Your task to perform on an android device: Go to accessibility settings Image 0: 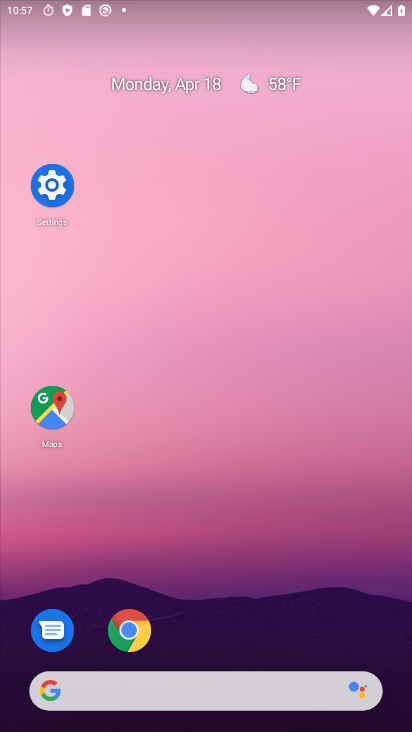
Step 0: drag from (299, 98) to (274, 408)
Your task to perform on an android device: Go to accessibility settings Image 1: 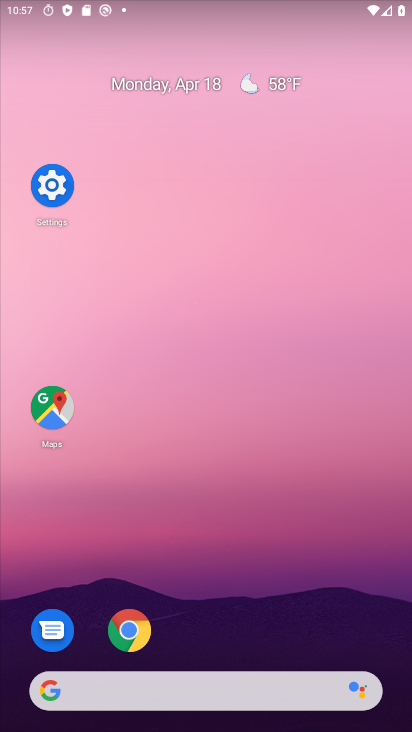
Step 1: drag from (279, 6) to (259, 488)
Your task to perform on an android device: Go to accessibility settings Image 2: 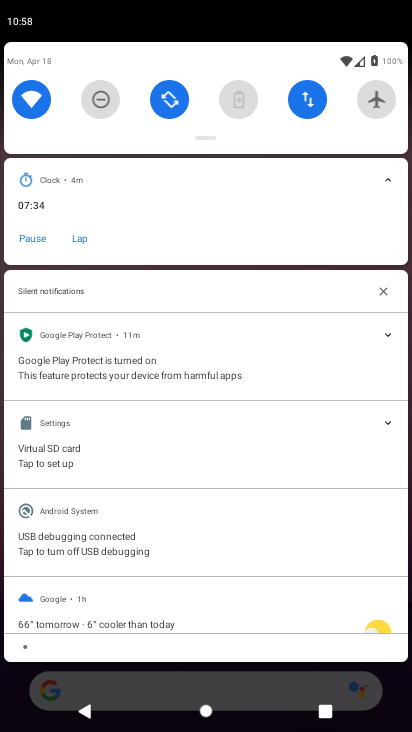
Step 2: press home button
Your task to perform on an android device: Go to accessibility settings Image 3: 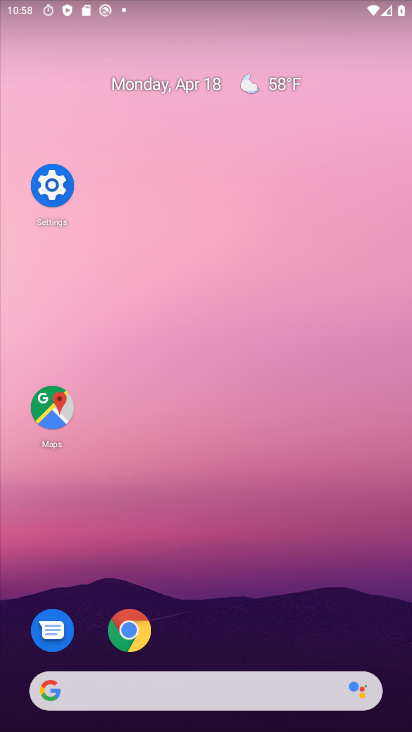
Step 3: click (65, 185)
Your task to perform on an android device: Go to accessibility settings Image 4: 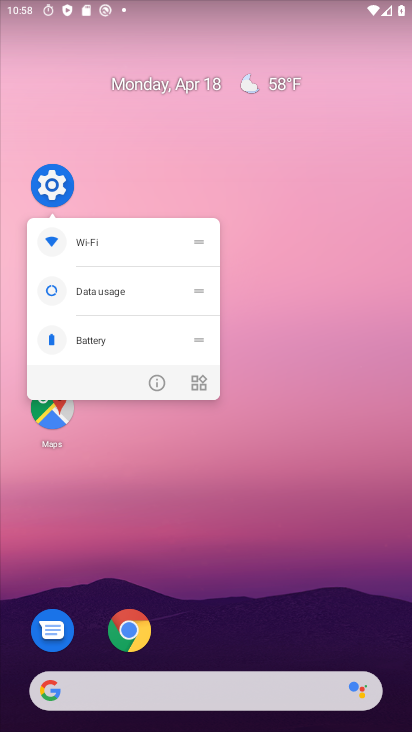
Step 4: click (46, 185)
Your task to perform on an android device: Go to accessibility settings Image 5: 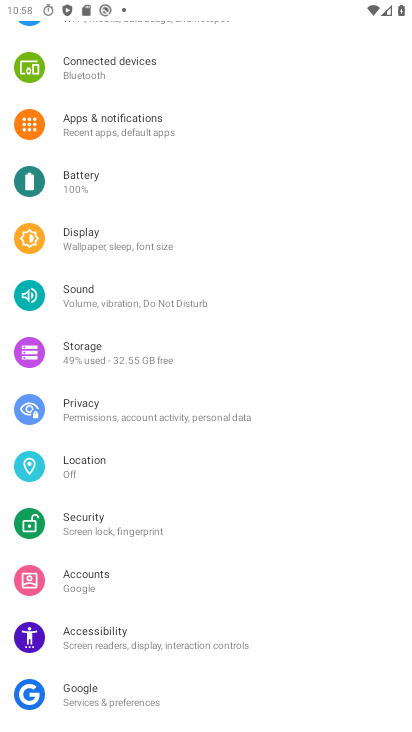
Step 5: drag from (201, 579) to (225, 371)
Your task to perform on an android device: Go to accessibility settings Image 6: 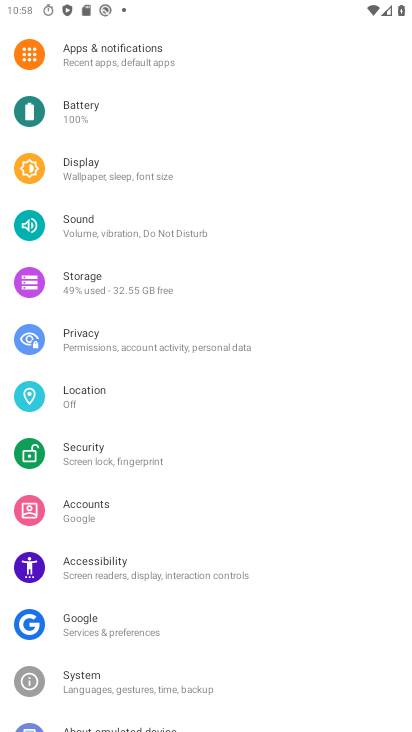
Step 6: click (189, 565)
Your task to perform on an android device: Go to accessibility settings Image 7: 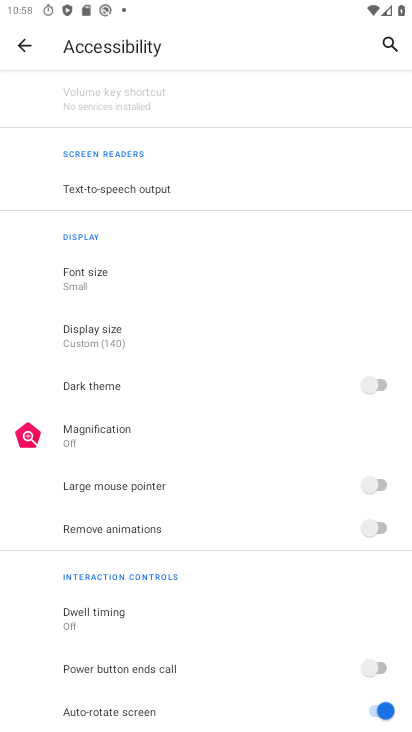
Step 7: task complete